Your task to perform on an android device: search for starred emails in the gmail app Image 0: 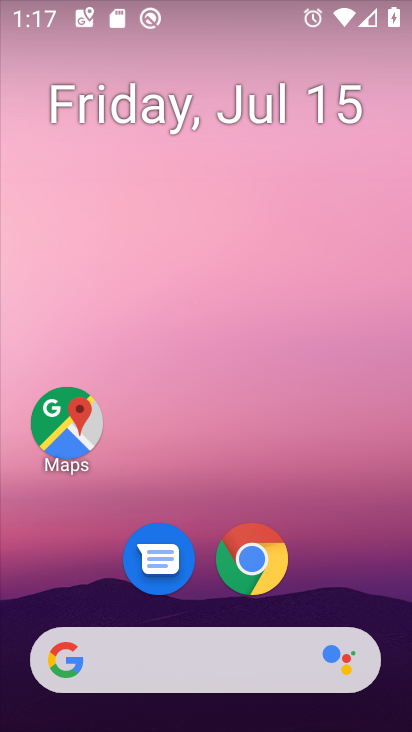
Step 0: drag from (334, 581) to (378, 141)
Your task to perform on an android device: search for starred emails in the gmail app Image 1: 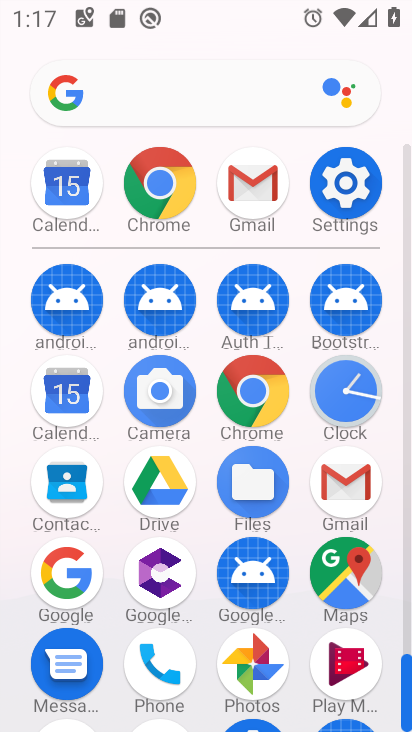
Step 1: click (255, 184)
Your task to perform on an android device: search for starred emails in the gmail app Image 2: 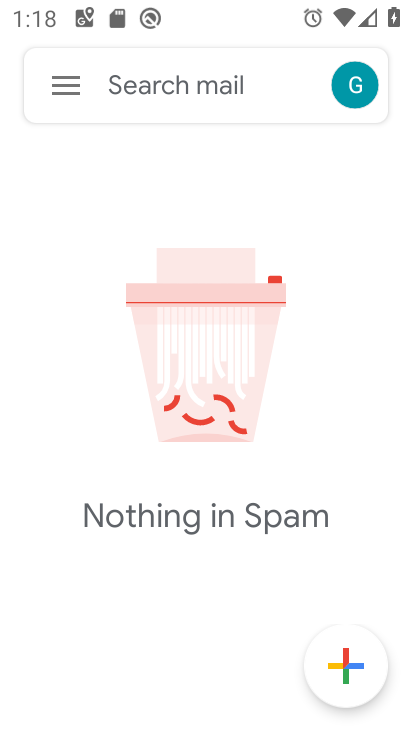
Step 2: click (54, 83)
Your task to perform on an android device: search for starred emails in the gmail app Image 3: 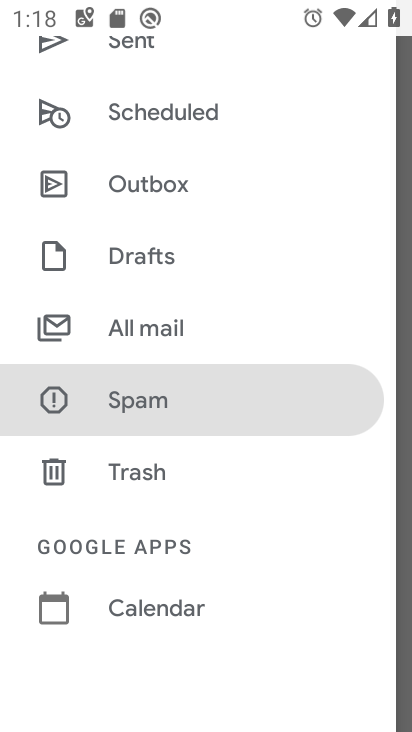
Step 3: drag from (300, 187) to (297, 264)
Your task to perform on an android device: search for starred emails in the gmail app Image 4: 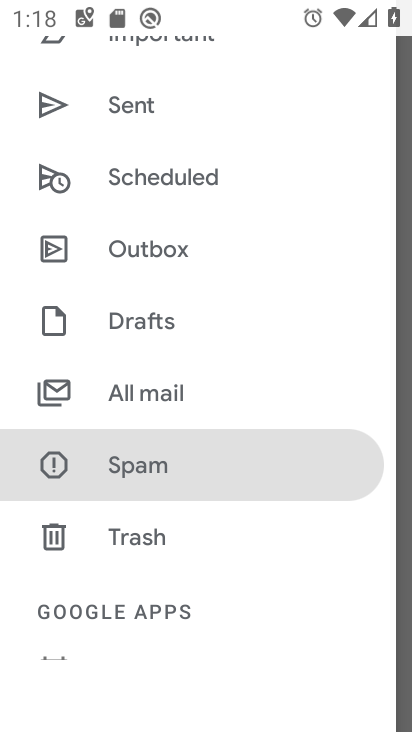
Step 4: drag from (295, 197) to (286, 288)
Your task to perform on an android device: search for starred emails in the gmail app Image 5: 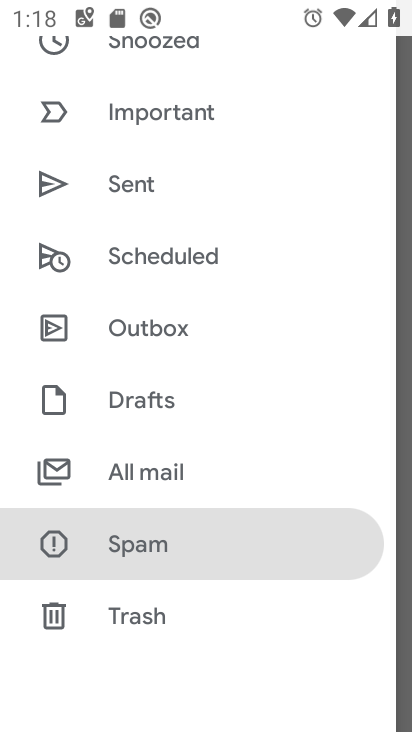
Step 5: drag from (293, 171) to (293, 264)
Your task to perform on an android device: search for starred emails in the gmail app Image 6: 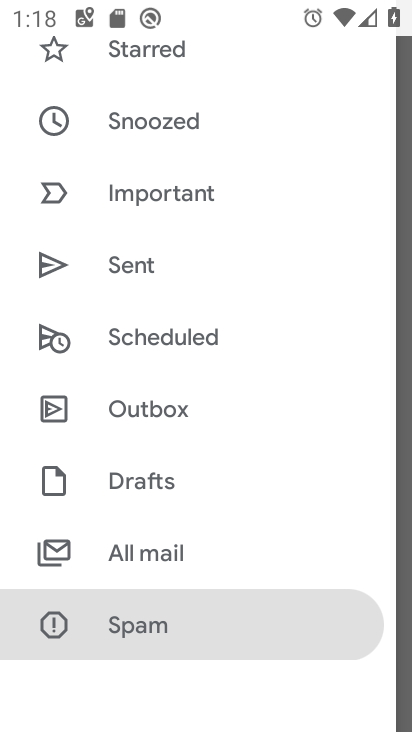
Step 6: drag from (290, 159) to (288, 287)
Your task to perform on an android device: search for starred emails in the gmail app Image 7: 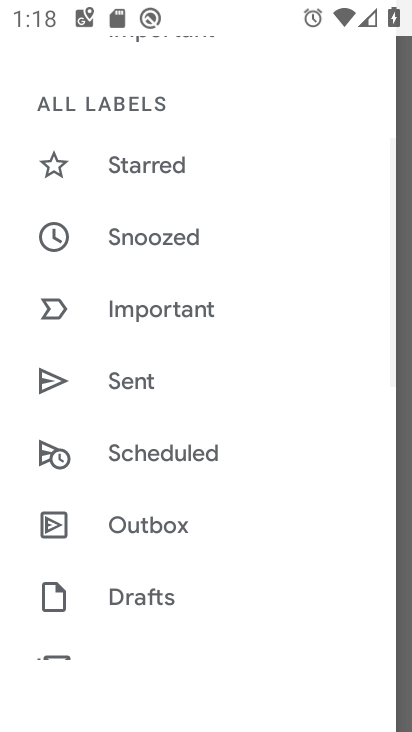
Step 7: drag from (298, 188) to (302, 269)
Your task to perform on an android device: search for starred emails in the gmail app Image 8: 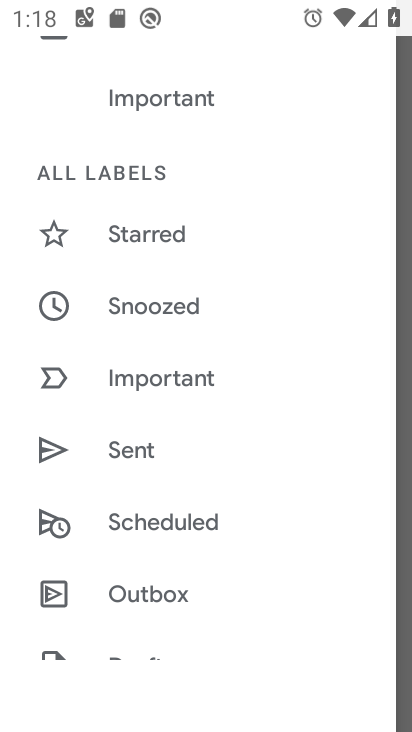
Step 8: drag from (304, 201) to (292, 349)
Your task to perform on an android device: search for starred emails in the gmail app Image 9: 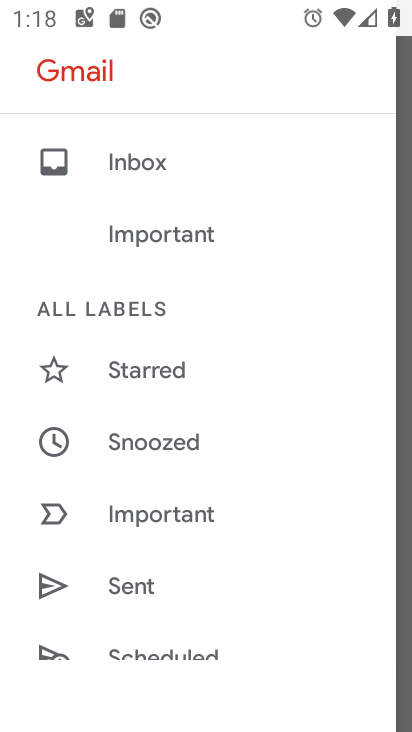
Step 9: click (210, 377)
Your task to perform on an android device: search for starred emails in the gmail app Image 10: 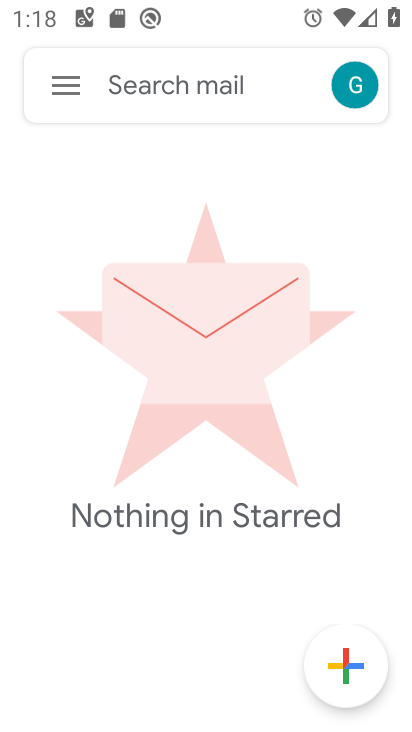
Step 10: task complete